Your task to perform on an android device: set the timer Image 0: 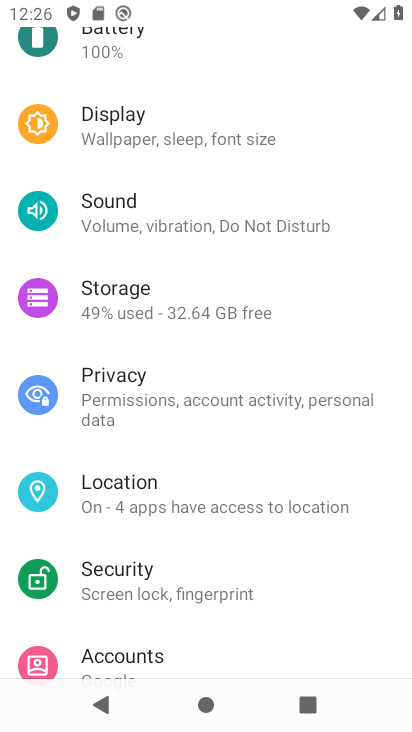
Step 0: press back button
Your task to perform on an android device: set the timer Image 1: 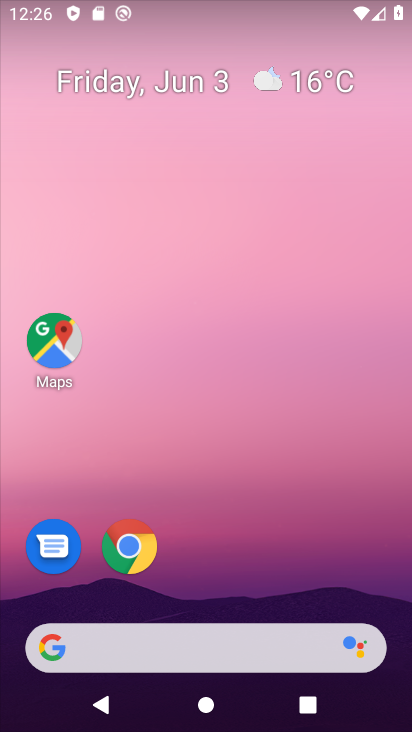
Step 1: drag from (260, 579) to (324, 93)
Your task to perform on an android device: set the timer Image 2: 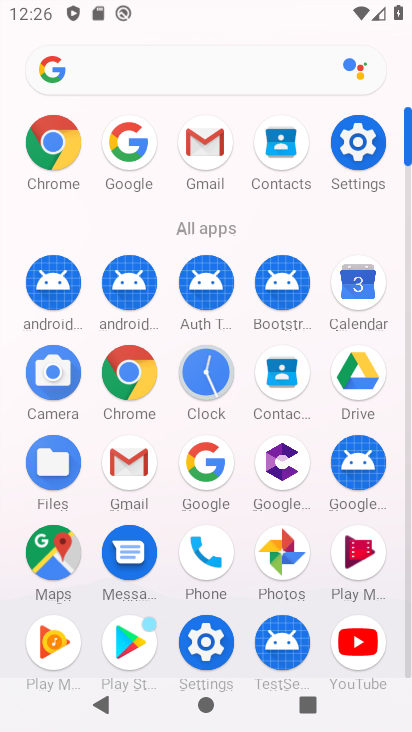
Step 2: click (205, 374)
Your task to perform on an android device: set the timer Image 3: 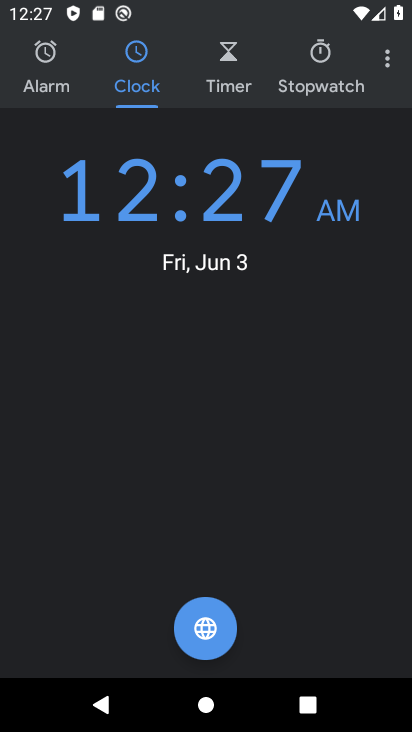
Step 3: click (232, 86)
Your task to perform on an android device: set the timer Image 4: 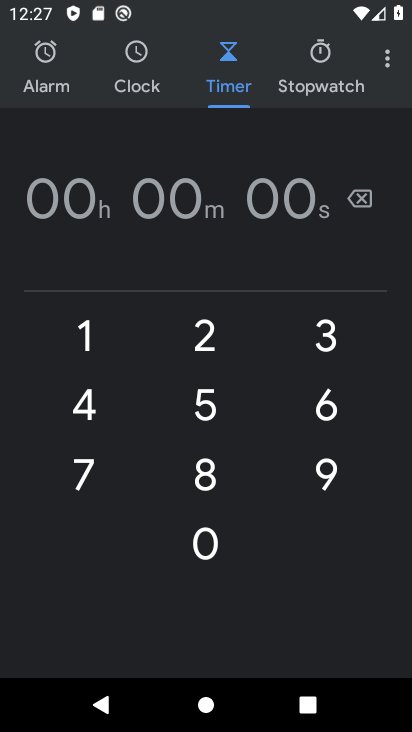
Step 4: click (197, 325)
Your task to perform on an android device: set the timer Image 5: 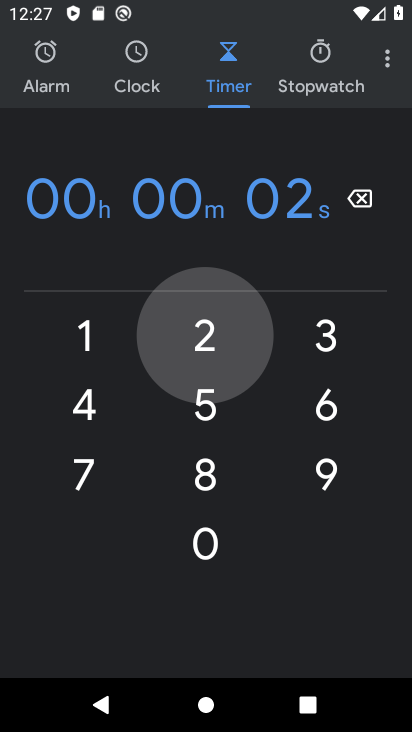
Step 5: click (219, 411)
Your task to perform on an android device: set the timer Image 6: 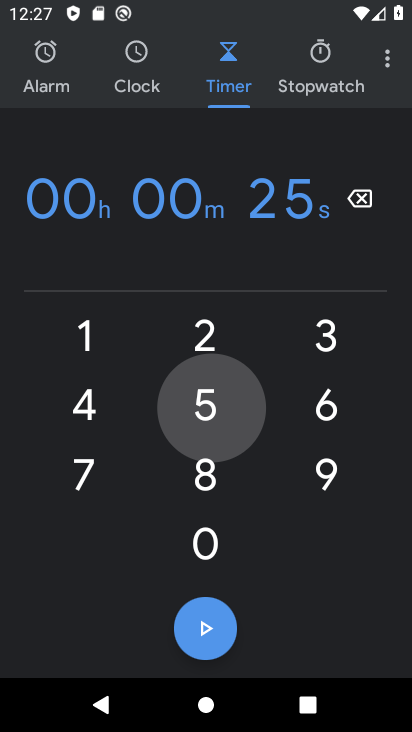
Step 6: click (315, 403)
Your task to perform on an android device: set the timer Image 7: 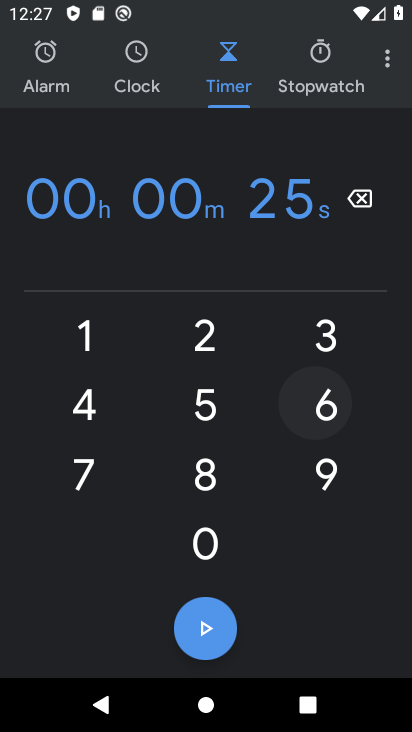
Step 7: click (334, 331)
Your task to perform on an android device: set the timer Image 8: 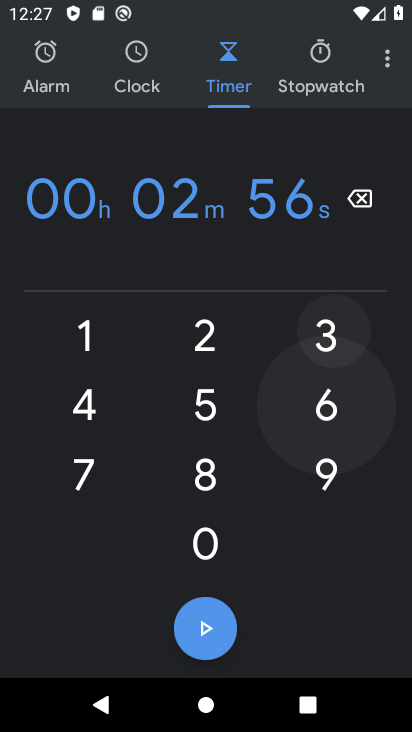
Step 8: click (217, 403)
Your task to perform on an android device: set the timer Image 9: 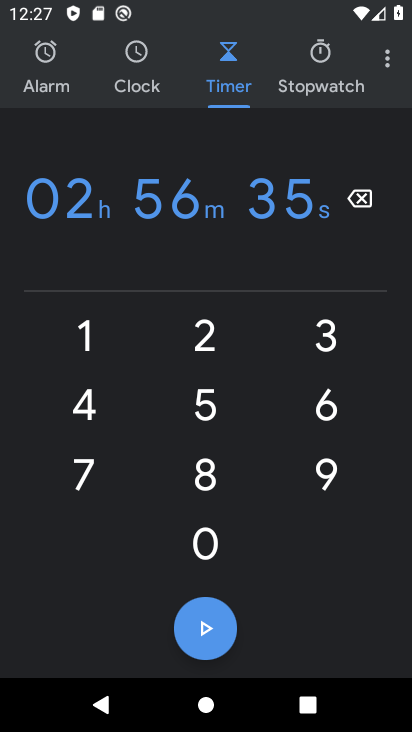
Step 9: click (204, 630)
Your task to perform on an android device: set the timer Image 10: 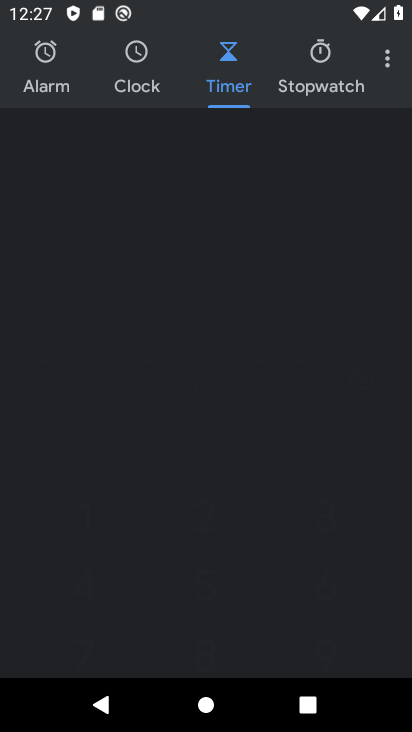
Step 10: task complete